Your task to perform on an android device: Open calendar and show me the second week of next month Image 0: 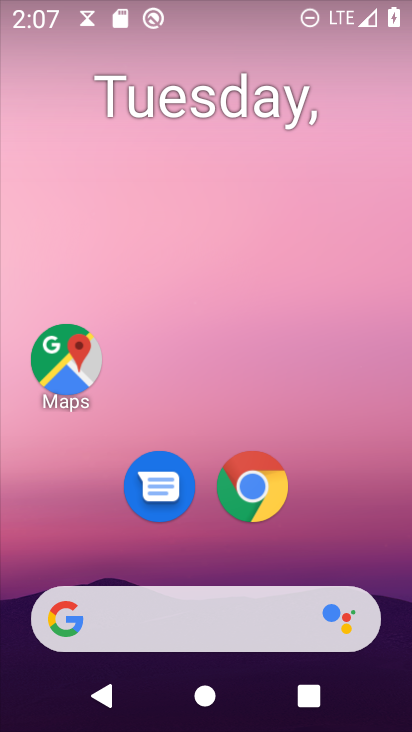
Step 0: drag from (192, 568) to (262, 167)
Your task to perform on an android device: Open calendar and show me the second week of next month Image 1: 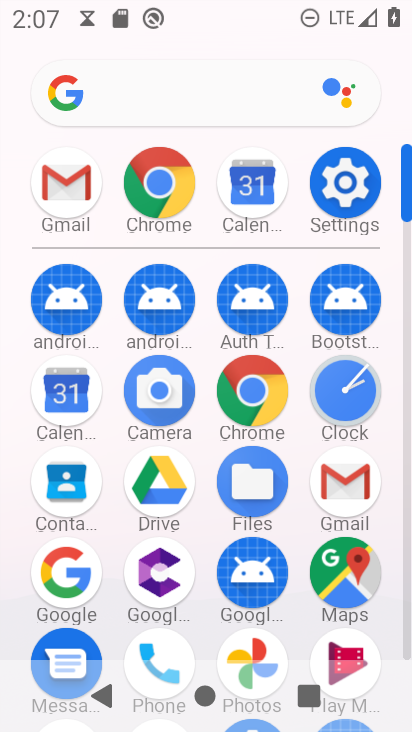
Step 1: drag from (199, 255) to (229, 65)
Your task to perform on an android device: Open calendar and show me the second week of next month Image 2: 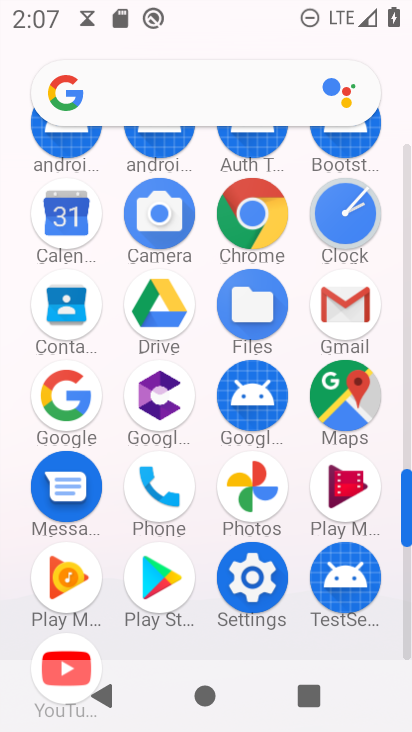
Step 2: click (63, 236)
Your task to perform on an android device: Open calendar and show me the second week of next month Image 3: 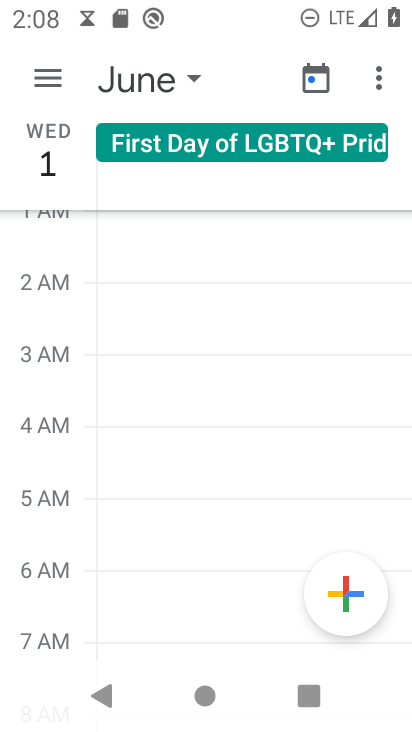
Step 3: click (191, 88)
Your task to perform on an android device: Open calendar and show me the second week of next month Image 4: 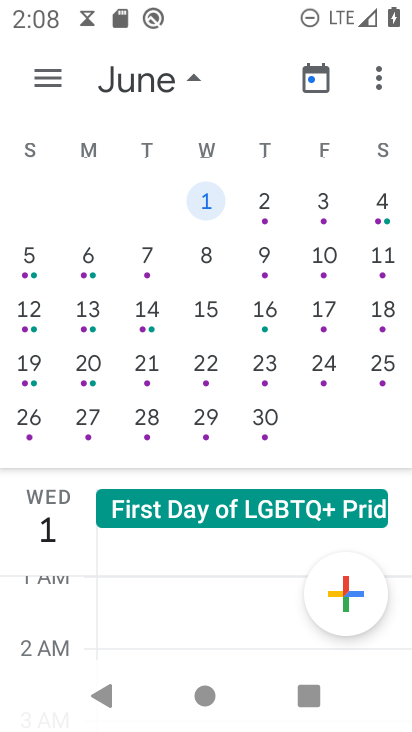
Step 4: click (36, 261)
Your task to perform on an android device: Open calendar and show me the second week of next month Image 5: 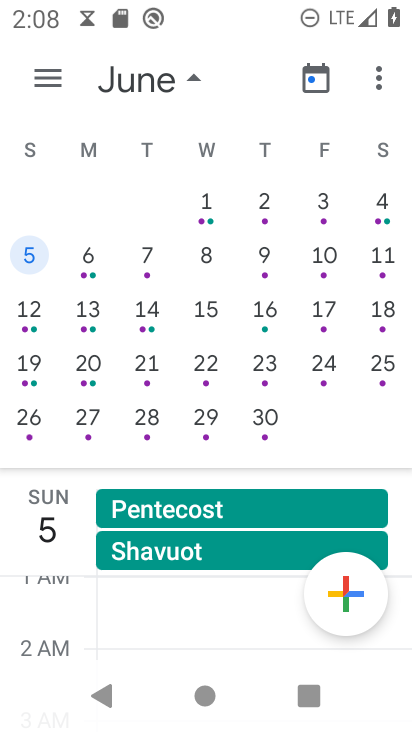
Step 5: click (177, 87)
Your task to perform on an android device: Open calendar and show me the second week of next month Image 6: 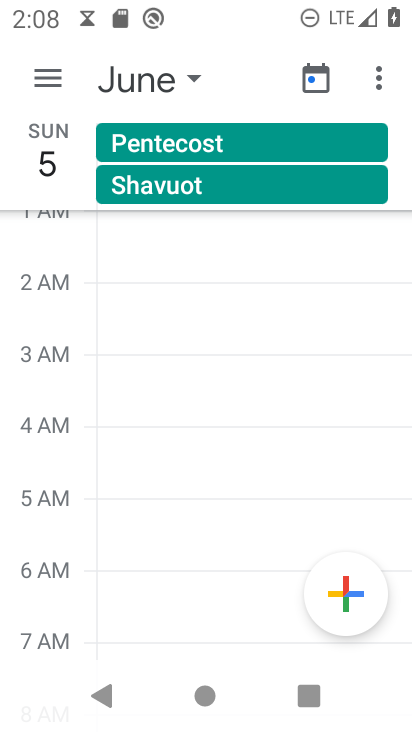
Step 6: click (51, 88)
Your task to perform on an android device: Open calendar and show me the second week of next month Image 7: 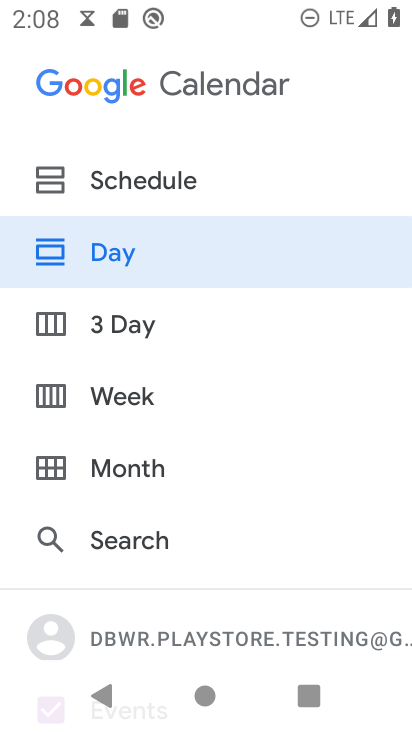
Step 7: click (145, 400)
Your task to perform on an android device: Open calendar and show me the second week of next month Image 8: 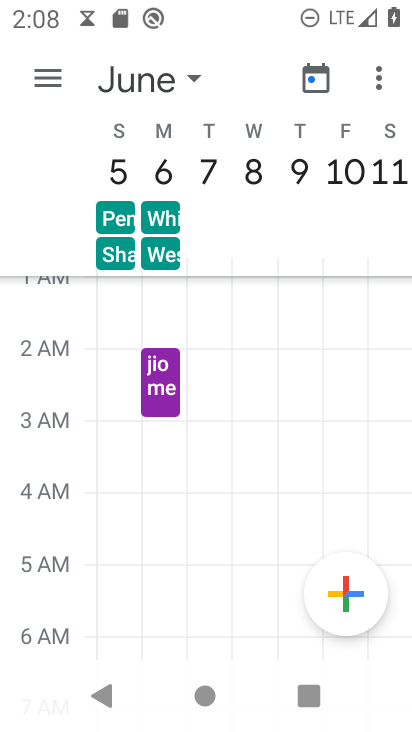
Step 8: task complete